Your task to perform on an android device: install app "Google Play Music" Image 0: 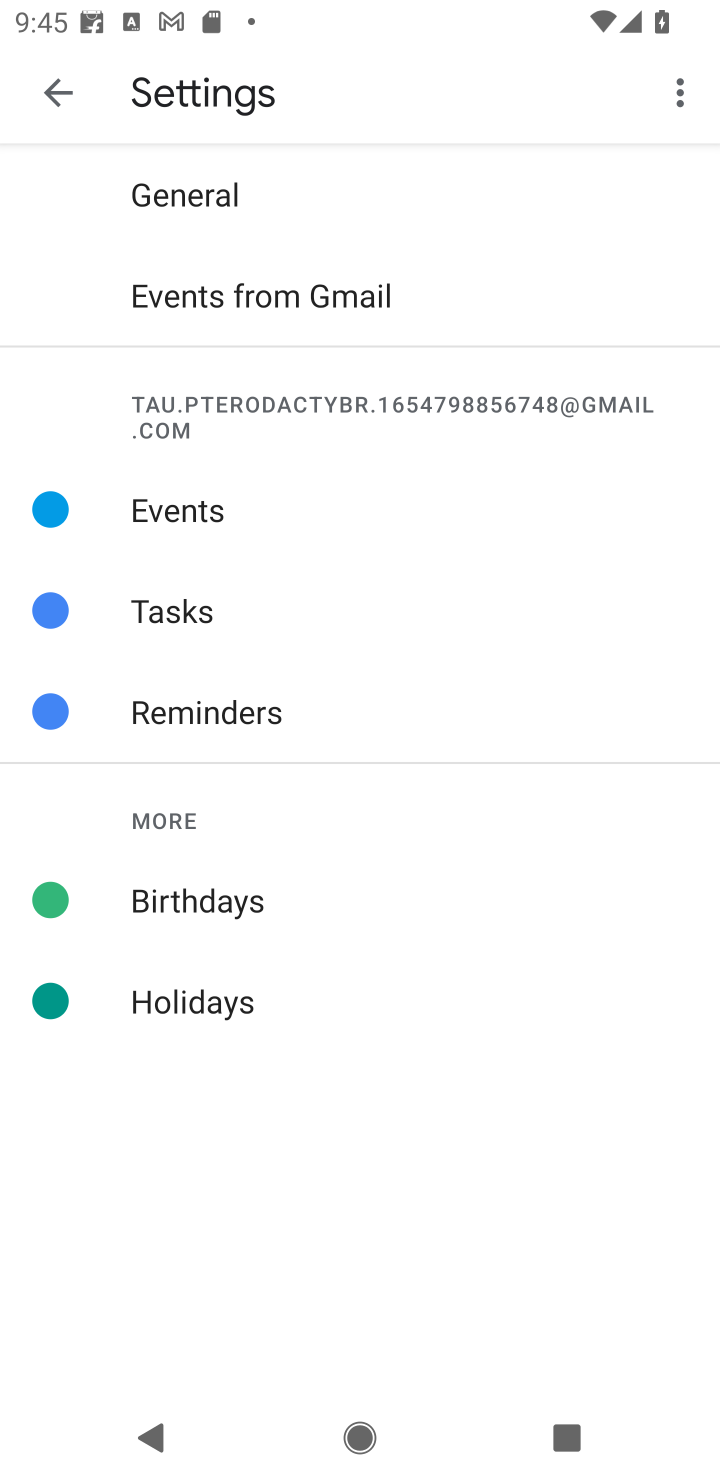
Step 0: press home button
Your task to perform on an android device: install app "Google Play Music" Image 1: 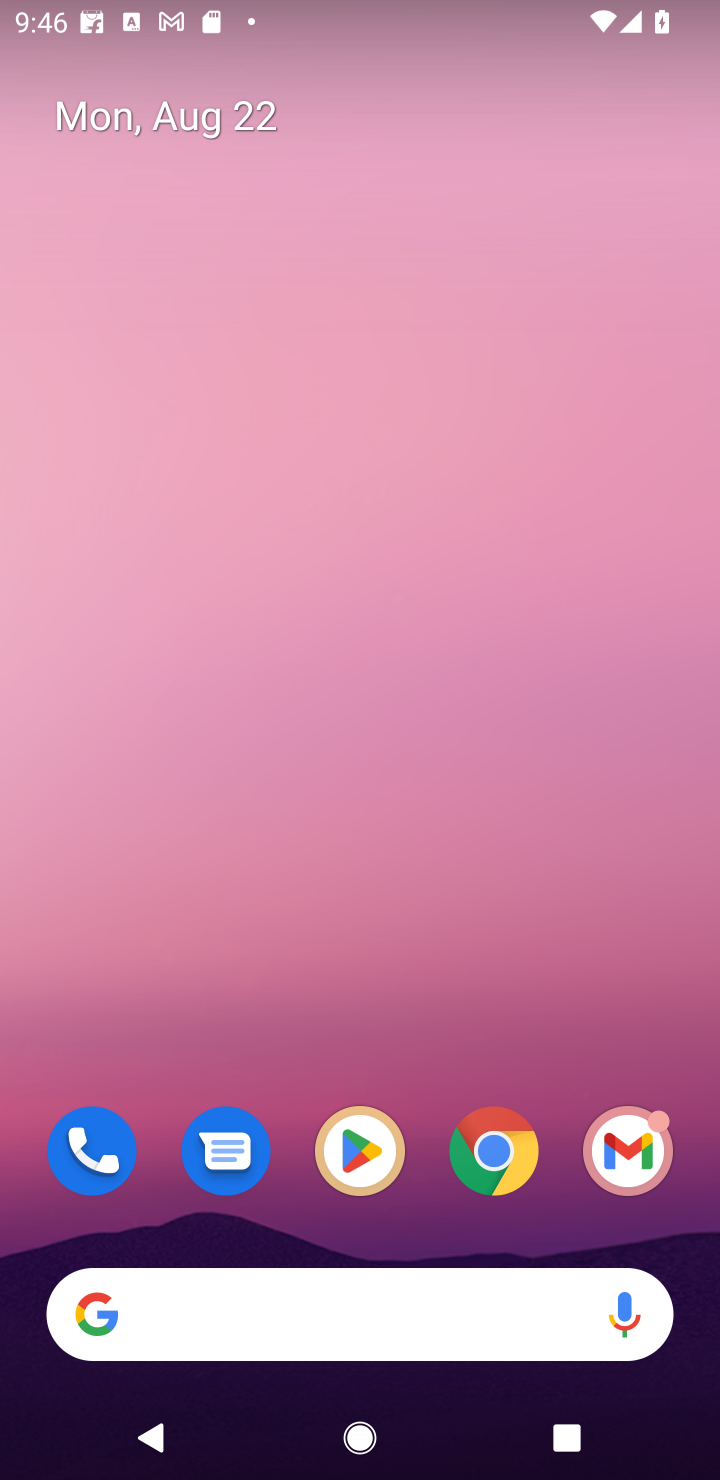
Step 1: click (370, 1139)
Your task to perform on an android device: install app "Google Play Music" Image 2: 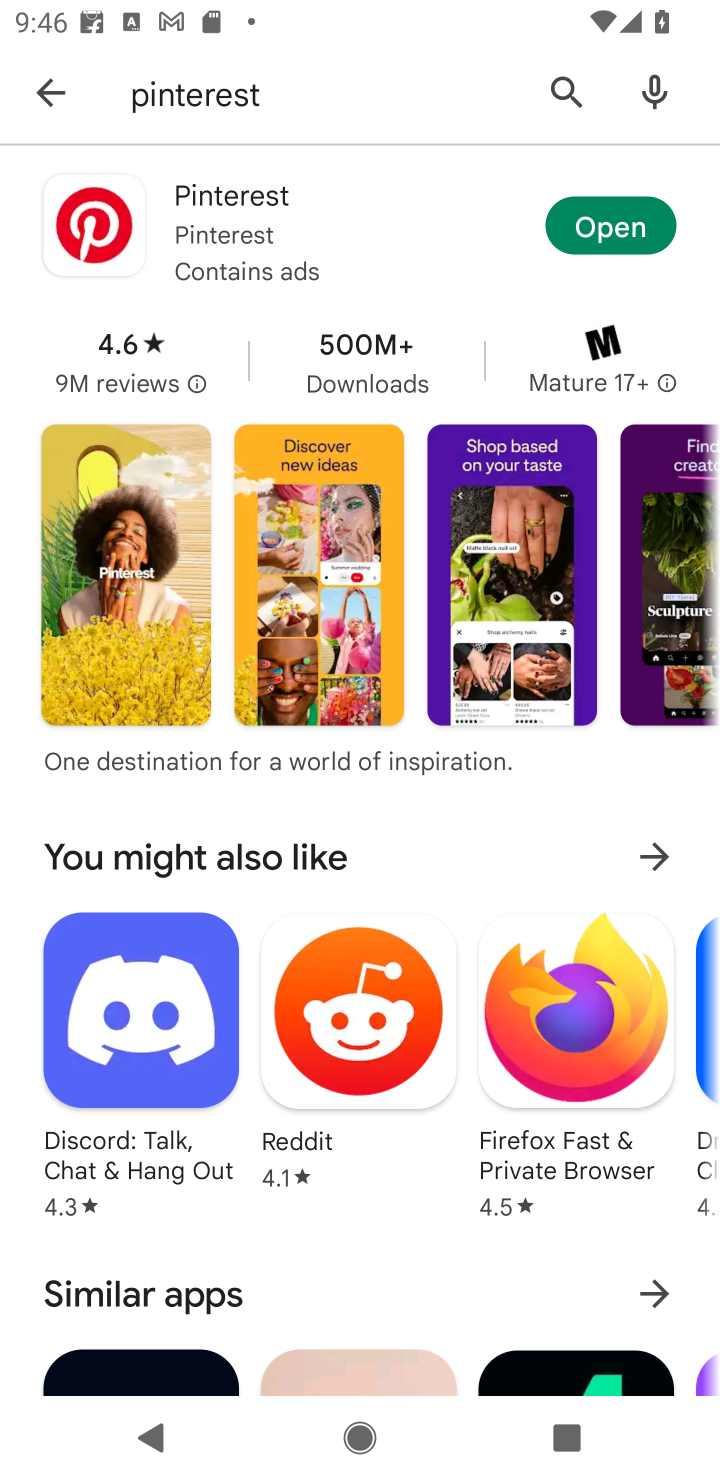
Step 2: click (570, 77)
Your task to perform on an android device: install app "Google Play Music" Image 3: 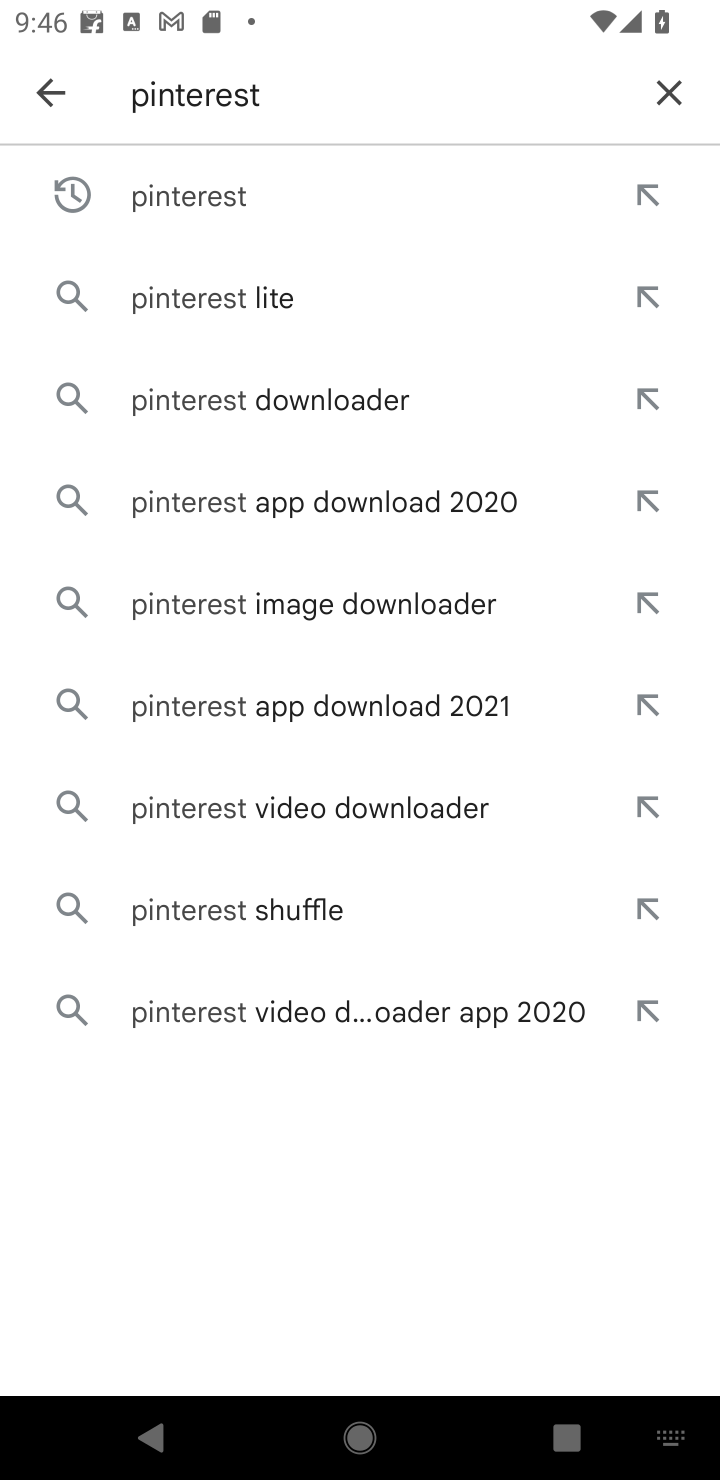
Step 3: click (655, 83)
Your task to perform on an android device: install app "Google Play Music" Image 4: 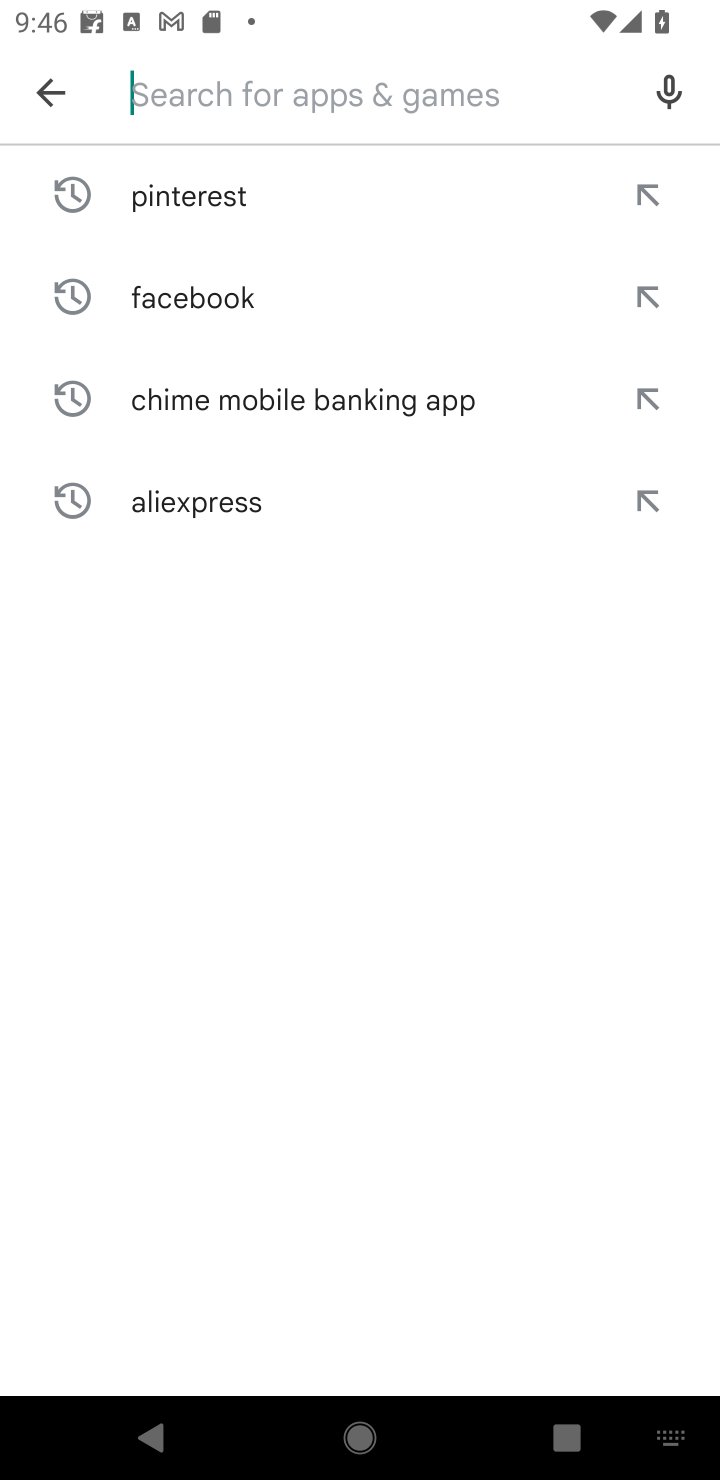
Step 4: type "Google Play Music"
Your task to perform on an android device: install app "Google Play Music" Image 5: 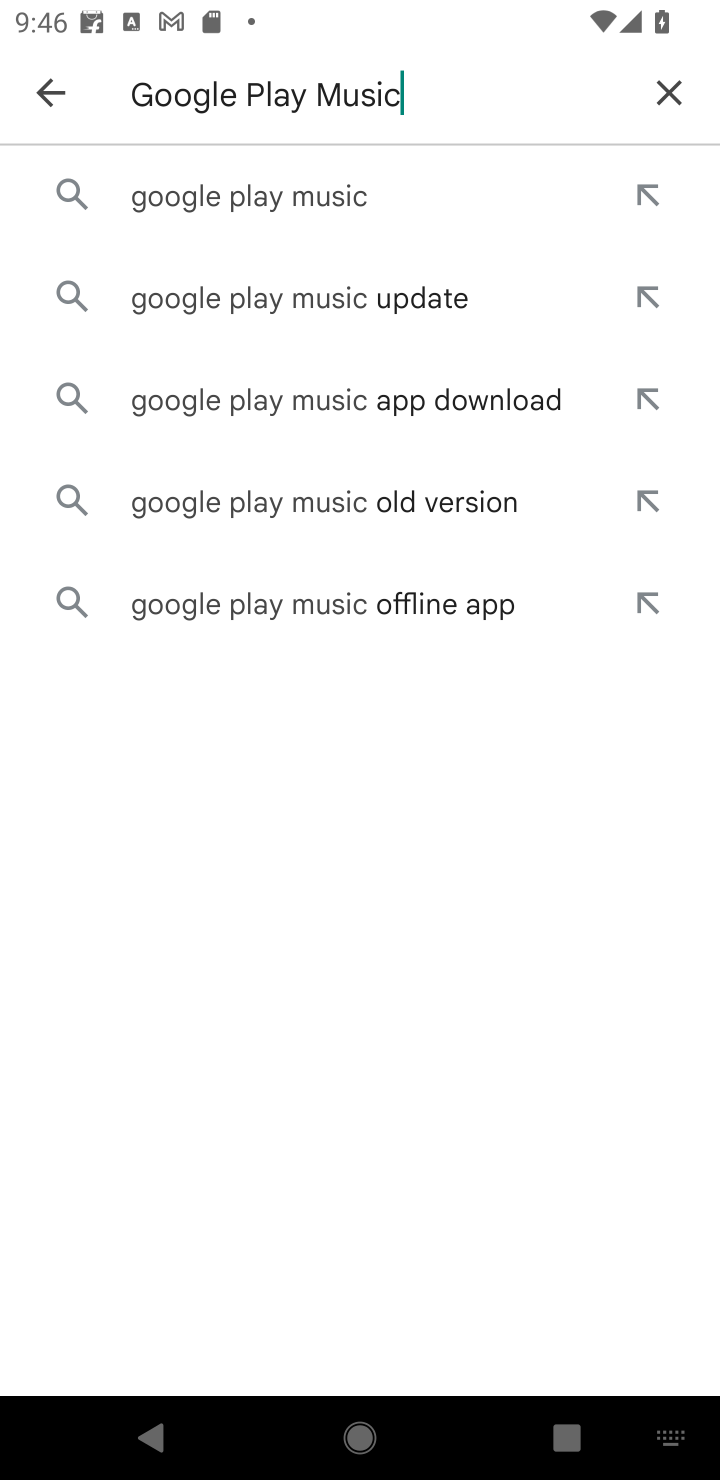
Step 5: click (260, 211)
Your task to perform on an android device: install app "Google Play Music" Image 6: 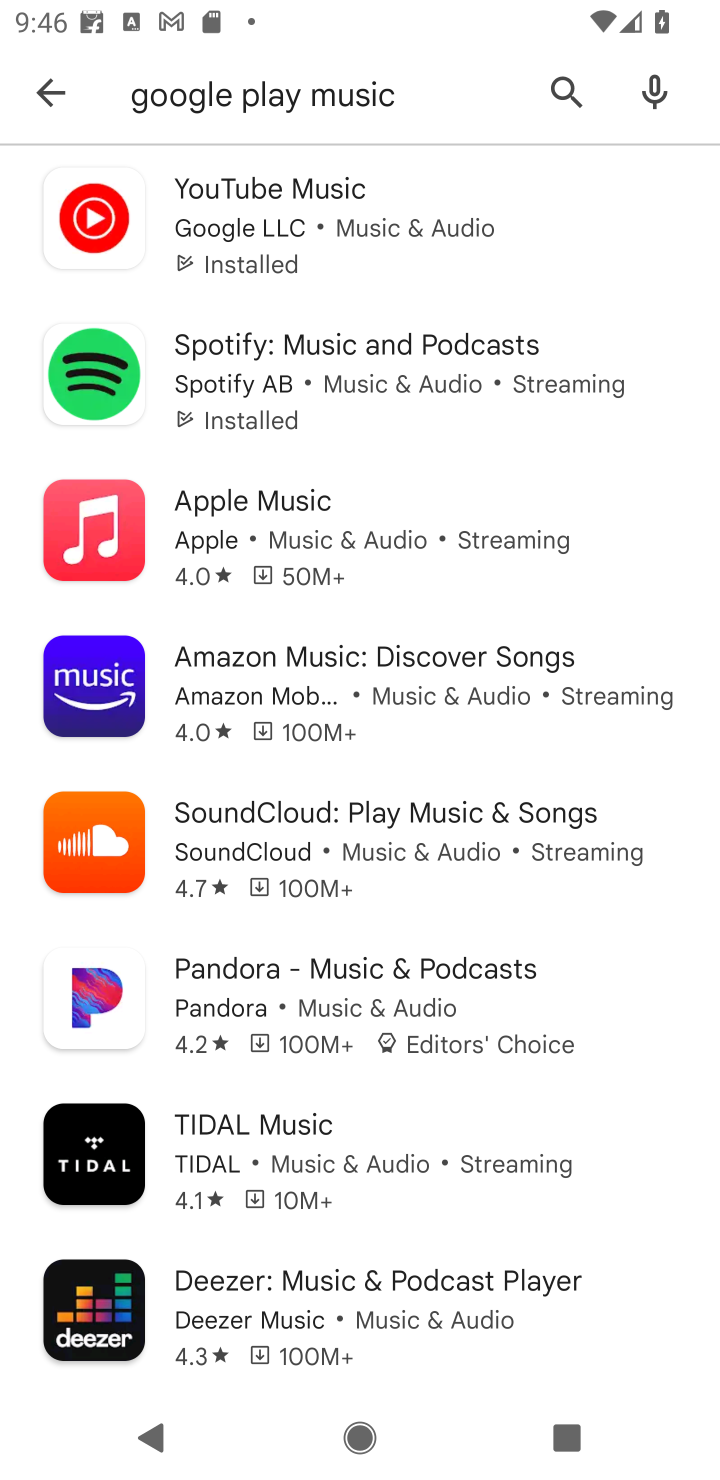
Step 6: task complete